Your task to perform on an android device: Is it going to rain tomorrow? Image 0: 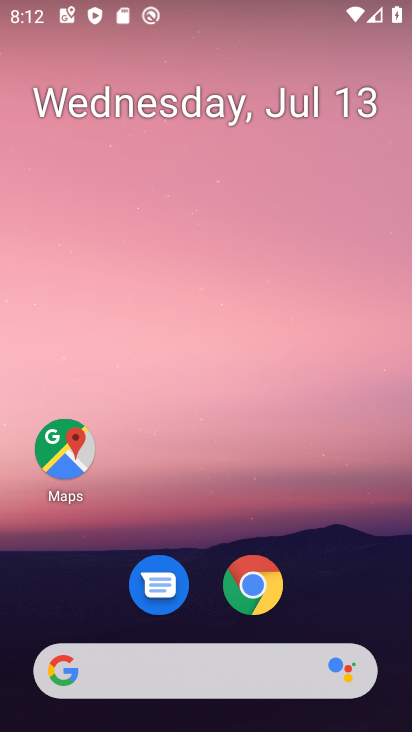
Step 0: drag from (323, 588) to (298, 29)
Your task to perform on an android device: Is it going to rain tomorrow? Image 1: 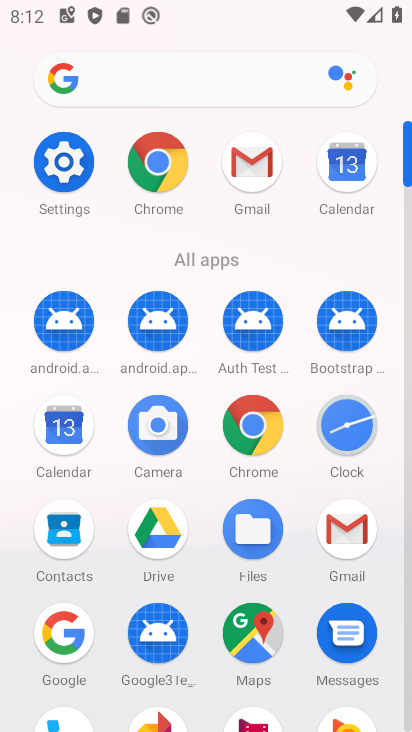
Step 1: click (199, 71)
Your task to perform on an android device: Is it going to rain tomorrow? Image 2: 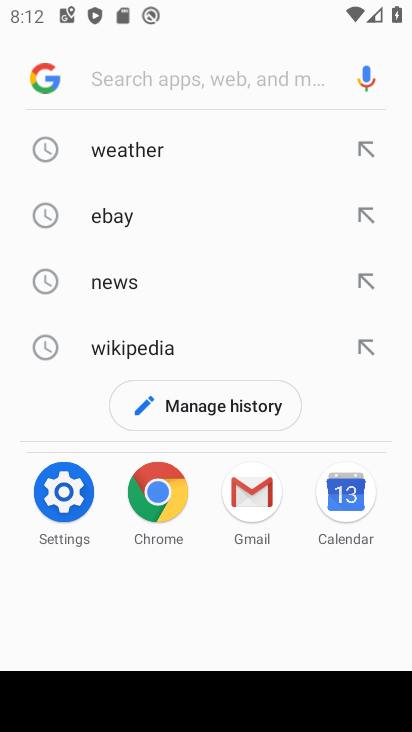
Step 2: click (42, 139)
Your task to perform on an android device: Is it going to rain tomorrow? Image 3: 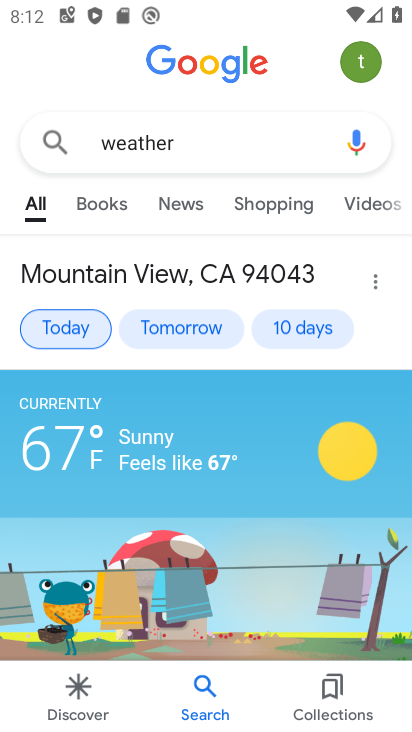
Step 3: click (78, 328)
Your task to perform on an android device: Is it going to rain tomorrow? Image 4: 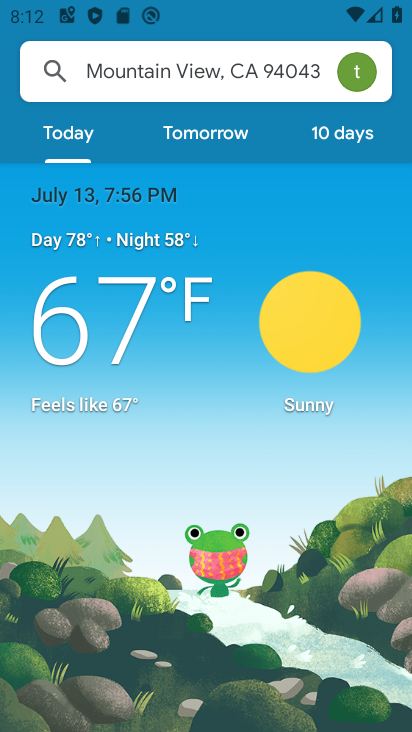
Step 4: click (223, 134)
Your task to perform on an android device: Is it going to rain tomorrow? Image 5: 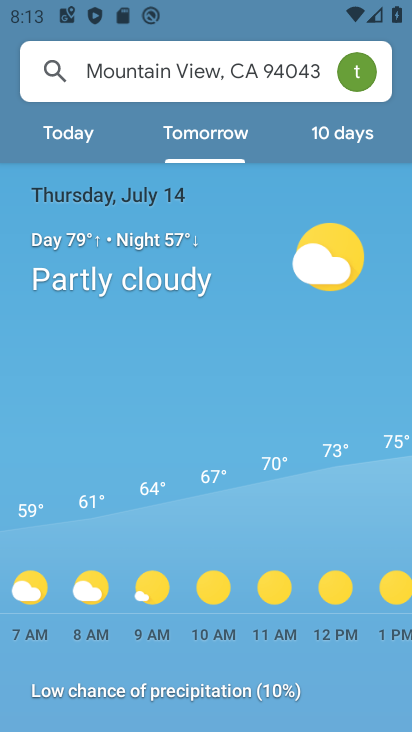
Step 5: drag from (261, 531) to (252, 127)
Your task to perform on an android device: Is it going to rain tomorrow? Image 6: 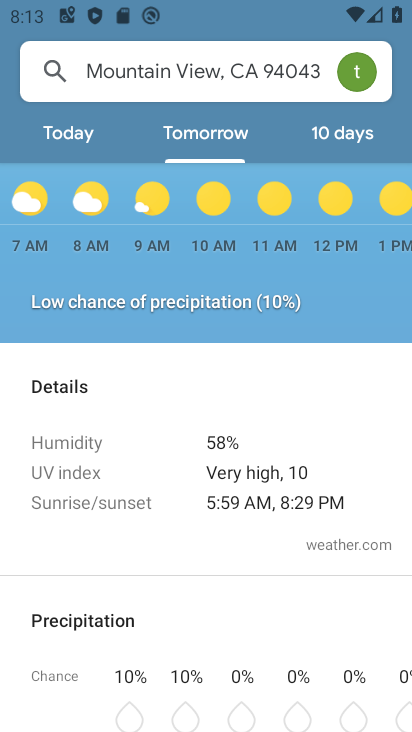
Step 6: drag from (227, 524) to (253, 217)
Your task to perform on an android device: Is it going to rain tomorrow? Image 7: 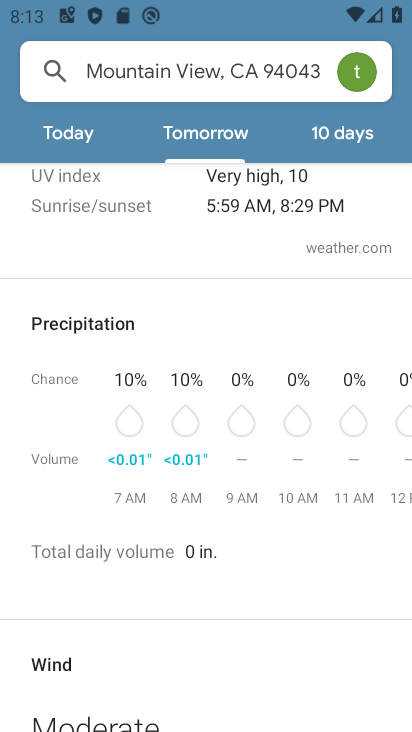
Step 7: drag from (372, 420) to (86, 394)
Your task to perform on an android device: Is it going to rain tomorrow? Image 8: 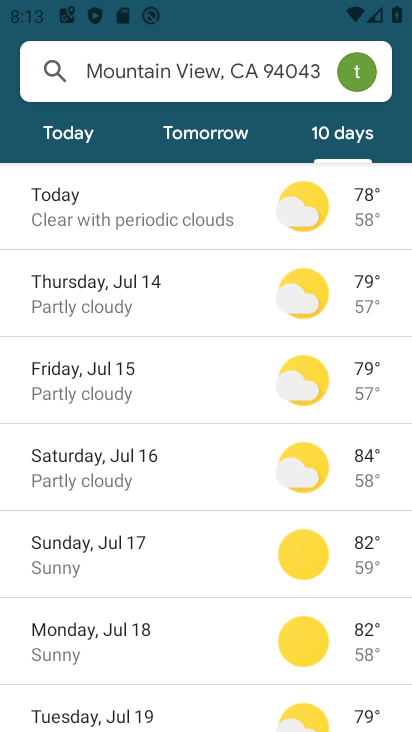
Step 8: drag from (37, 408) to (373, 531)
Your task to perform on an android device: Is it going to rain tomorrow? Image 9: 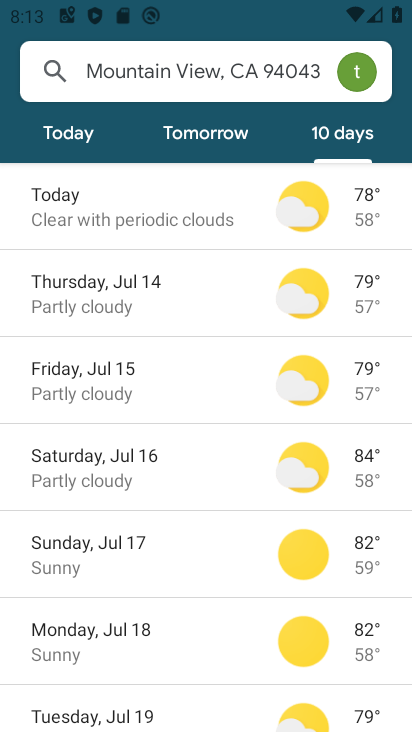
Step 9: drag from (76, 463) to (222, 461)
Your task to perform on an android device: Is it going to rain tomorrow? Image 10: 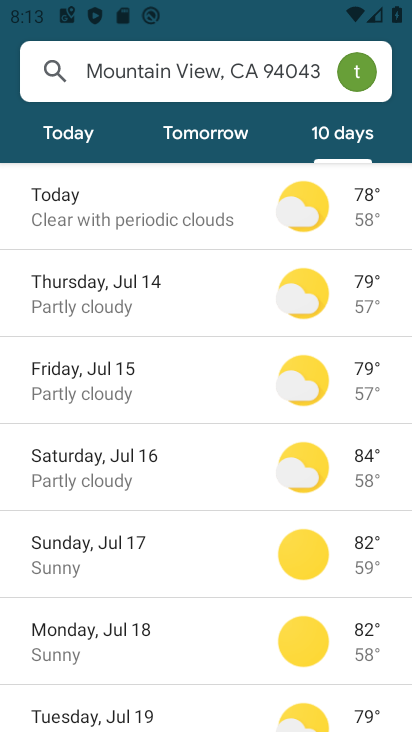
Step 10: click (220, 137)
Your task to perform on an android device: Is it going to rain tomorrow? Image 11: 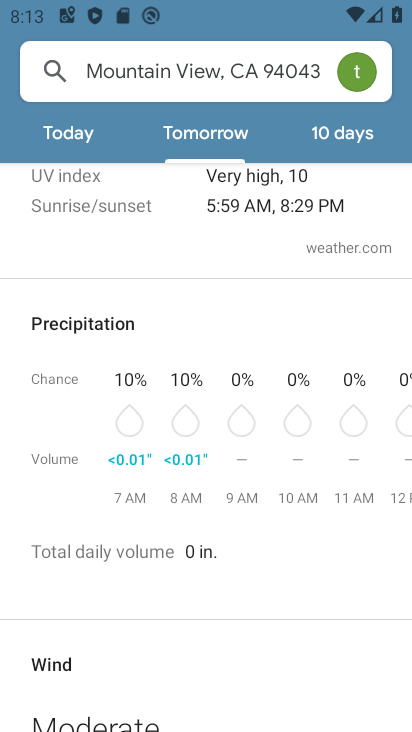
Step 11: task complete